Your task to perform on an android device: Go to Google Image 0: 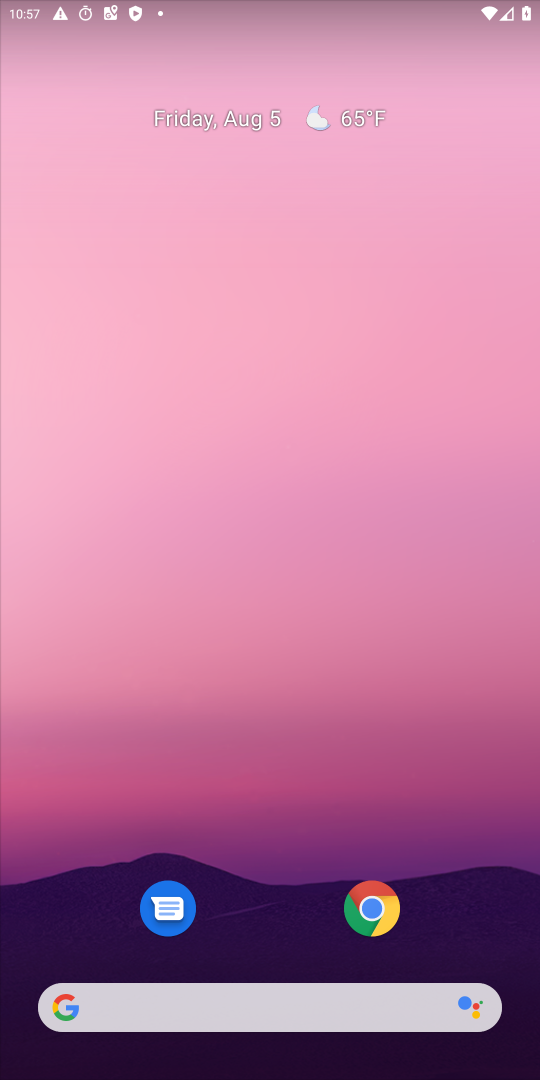
Step 0: click (108, 1001)
Your task to perform on an android device: Go to Google Image 1: 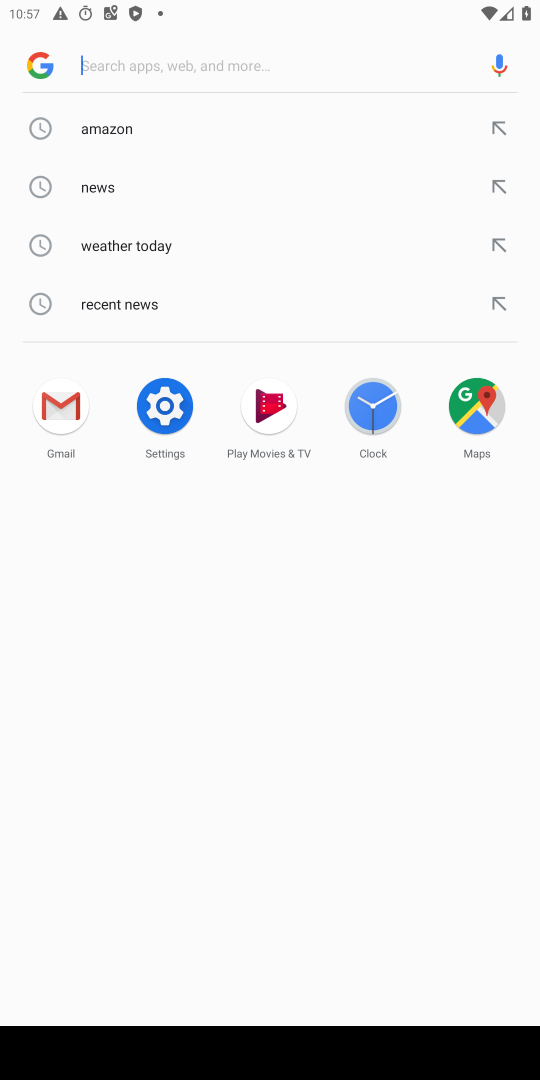
Step 1: task complete